Your task to perform on an android device: Open wifi settings Image 0: 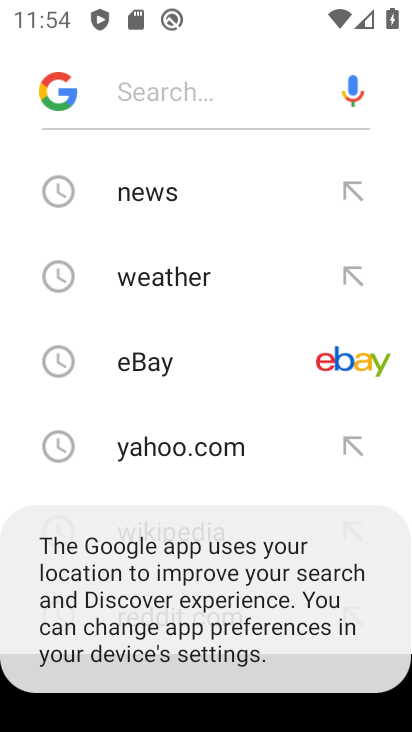
Step 0: press back button
Your task to perform on an android device: Open wifi settings Image 1: 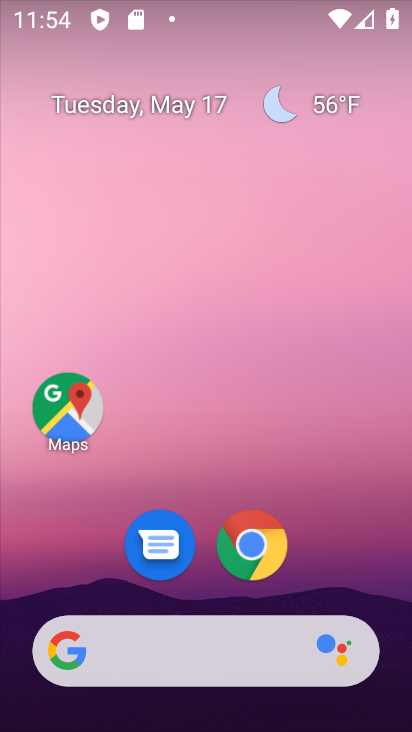
Step 1: drag from (319, 583) to (268, 157)
Your task to perform on an android device: Open wifi settings Image 2: 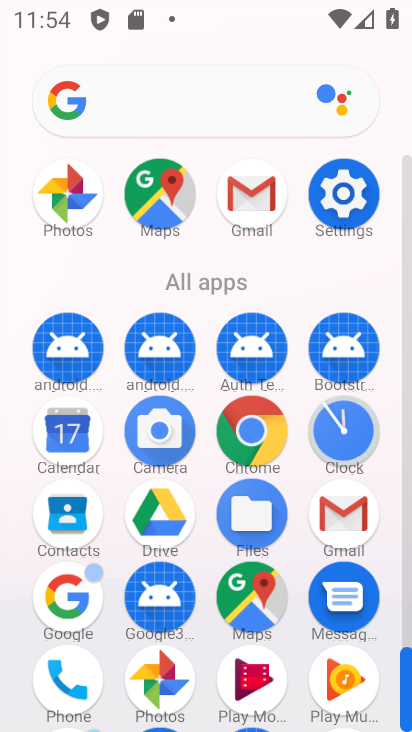
Step 2: click (343, 188)
Your task to perform on an android device: Open wifi settings Image 3: 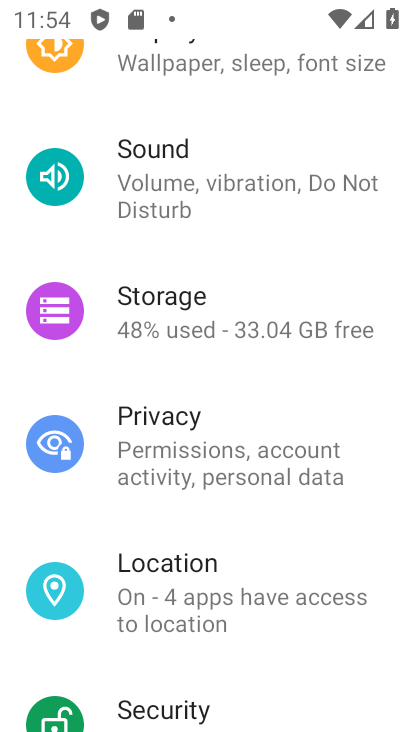
Step 3: drag from (241, 116) to (239, 408)
Your task to perform on an android device: Open wifi settings Image 4: 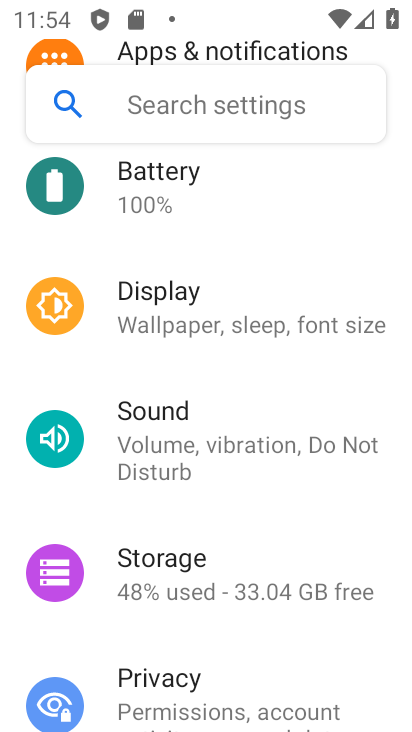
Step 4: drag from (254, 225) to (254, 504)
Your task to perform on an android device: Open wifi settings Image 5: 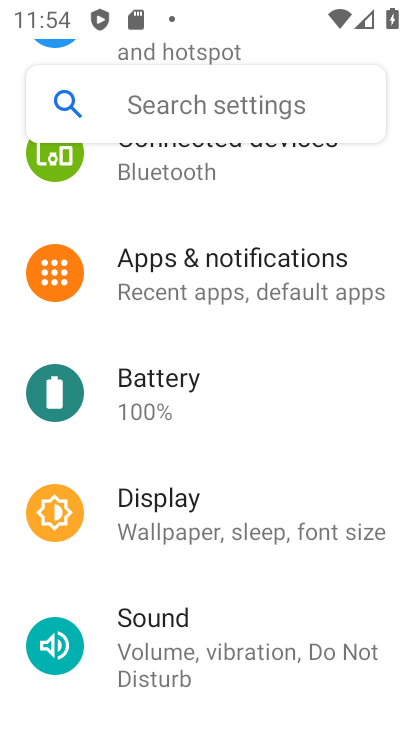
Step 5: drag from (255, 249) to (277, 495)
Your task to perform on an android device: Open wifi settings Image 6: 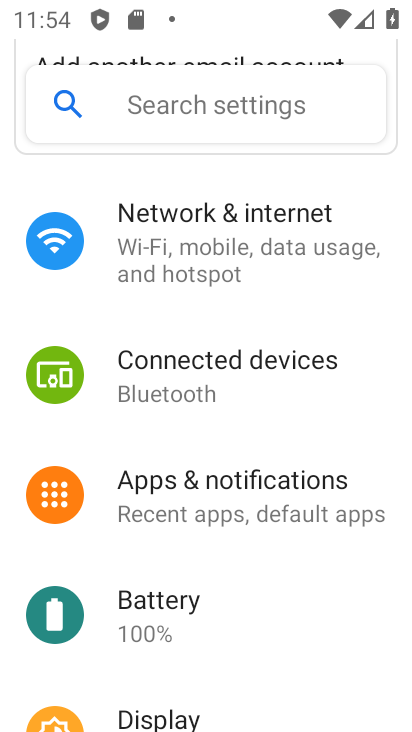
Step 6: click (244, 213)
Your task to perform on an android device: Open wifi settings Image 7: 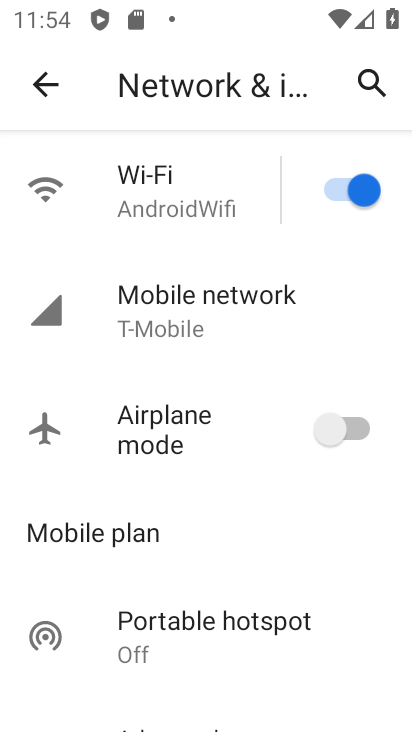
Step 7: click (172, 186)
Your task to perform on an android device: Open wifi settings Image 8: 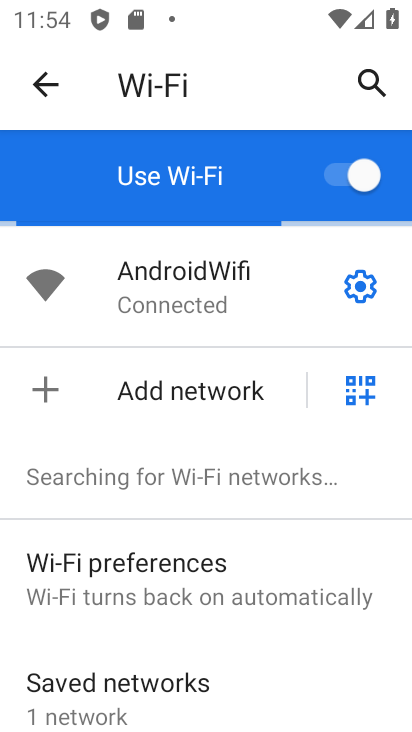
Step 8: click (359, 288)
Your task to perform on an android device: Open wifi settings Image 9: 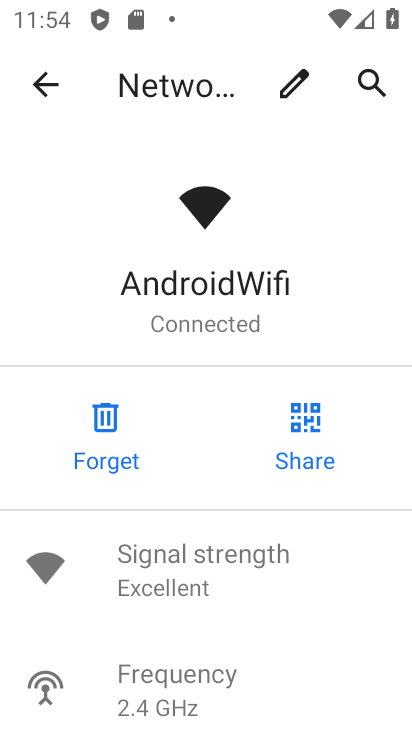
Step 9: task complete